Your task to perform on an android device: Open Google Chrome and open the bookmarks view Image 0: 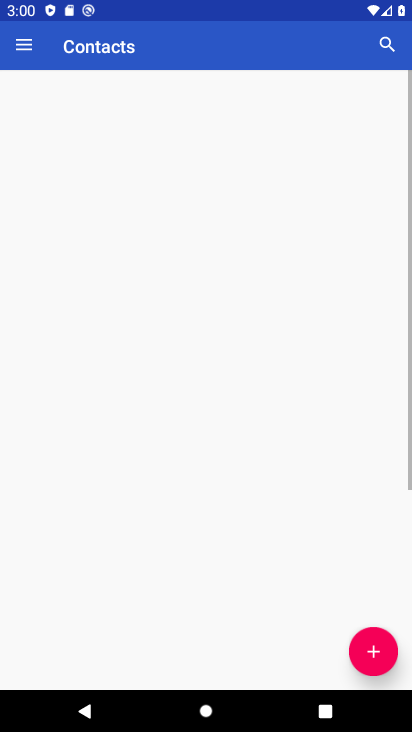
Step 0: press home button
Your task to perform on an android device: Open Google Chrome and open the bookmarks view Image 1: 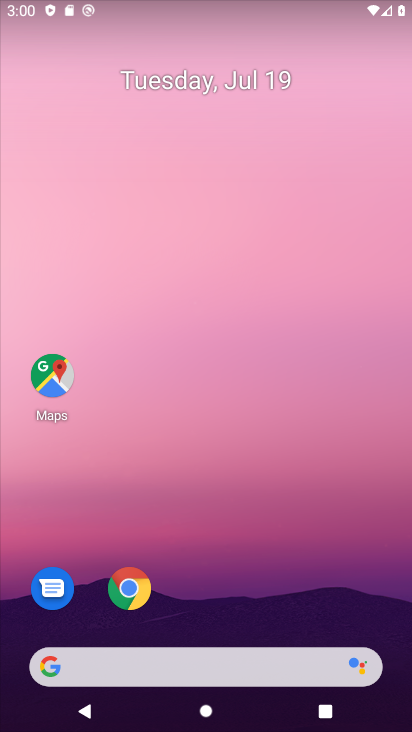
Step 1: click (131, 593)
Your task to perform on an android device: Open Google Chrome and open the bookmarks view Image 2: 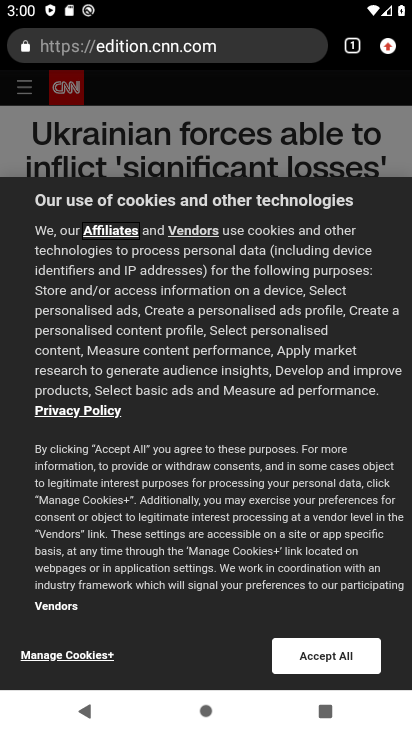
Step 2: click (386, 52)
Your task to perform on an android device: Open Google Chrome and open the bookmarks view Image 3: 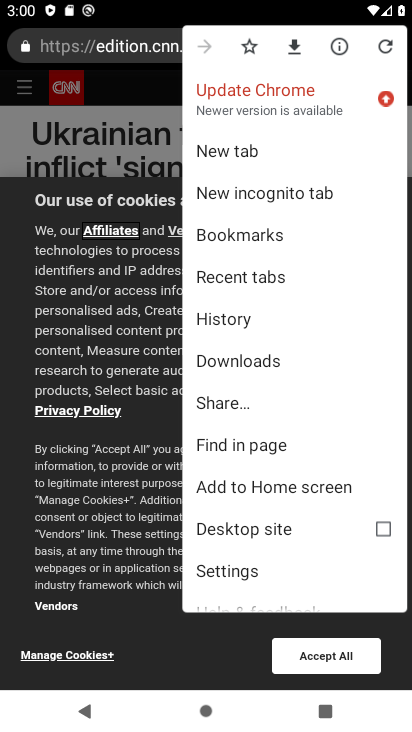
Step 3: click (241, 235)
Your task to perform on an android device: Open Google Chrome and open the bookmarks view Image 4: 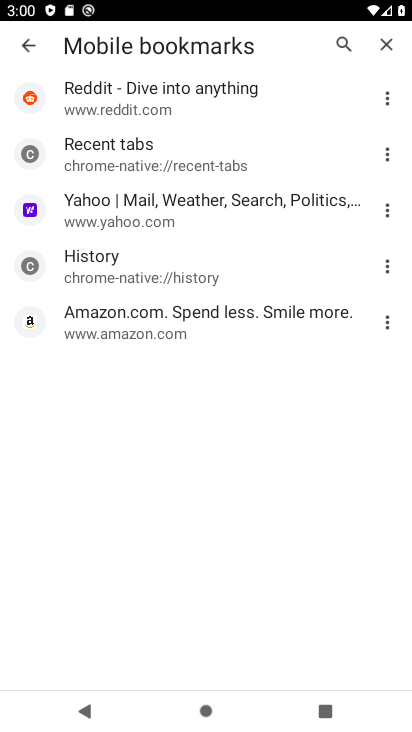
Step 4: click (387, 94)
Your task to perform on an android device: Open Google Chrome and open the bookmarks view Image 5: 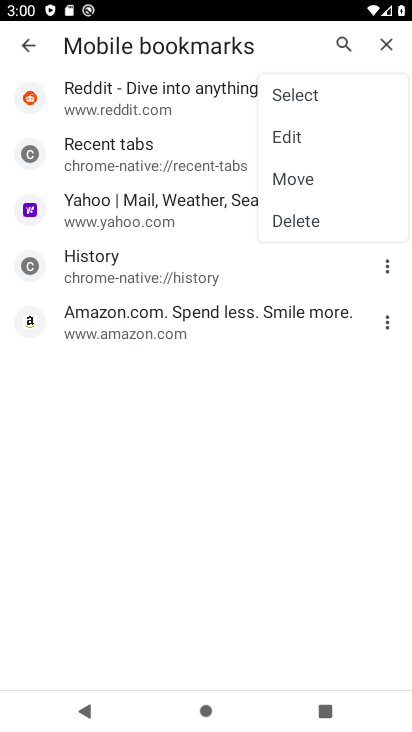
Step 5: click (300, 127)
Your task to perform on an android device: Open Google Chrome and open the bookmarks view Image 6: 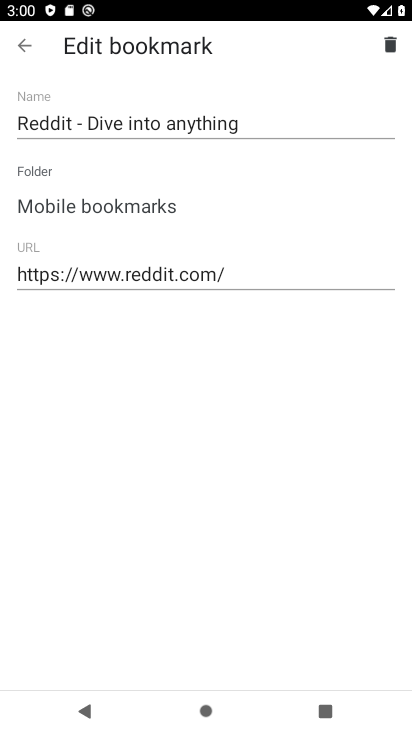
Step 6: task complete